Your task to perform on an android device: turn off priority inbox in the gmail app Image 0: 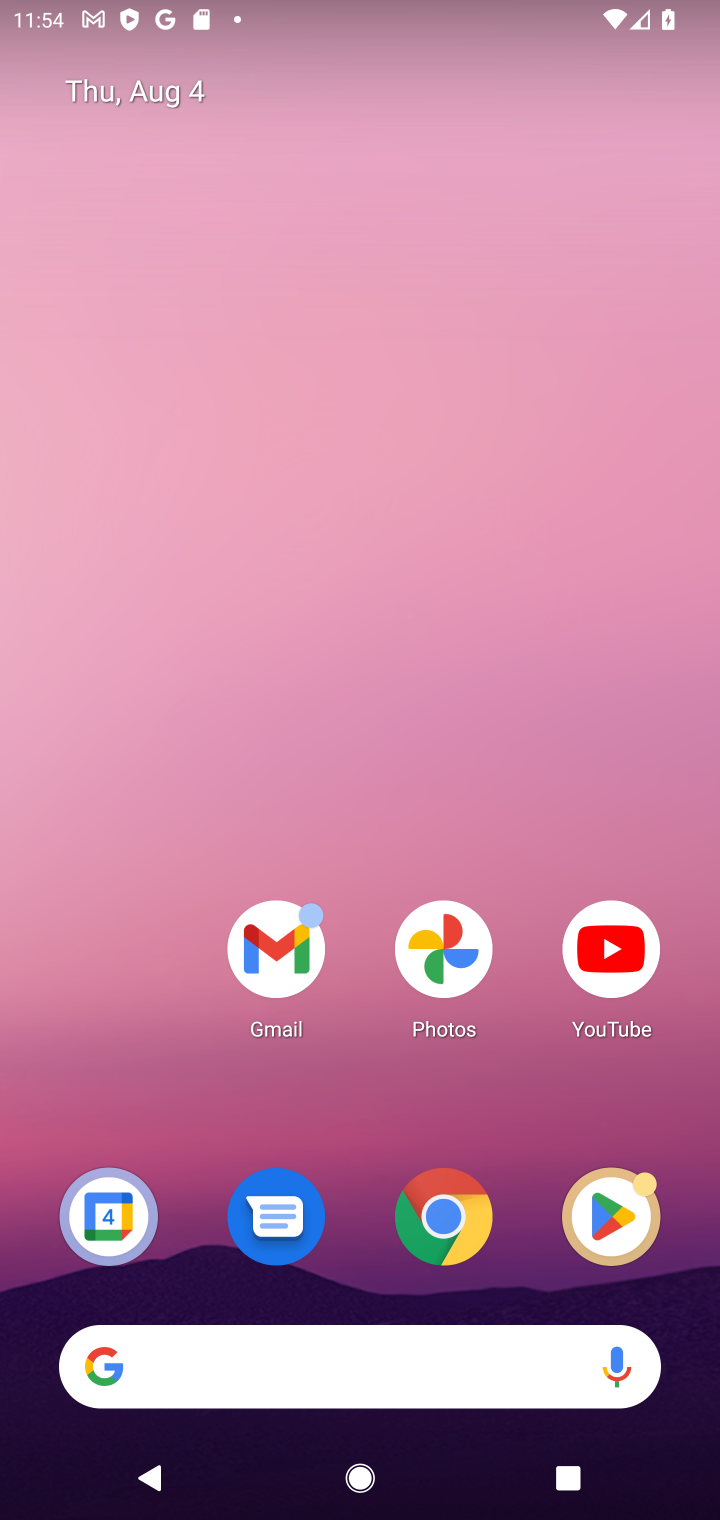
Step 0: drag from (387, 604) to (405, 117)
Your task to perform on an android device: turn off priority inbox in the gmail app Image 1: 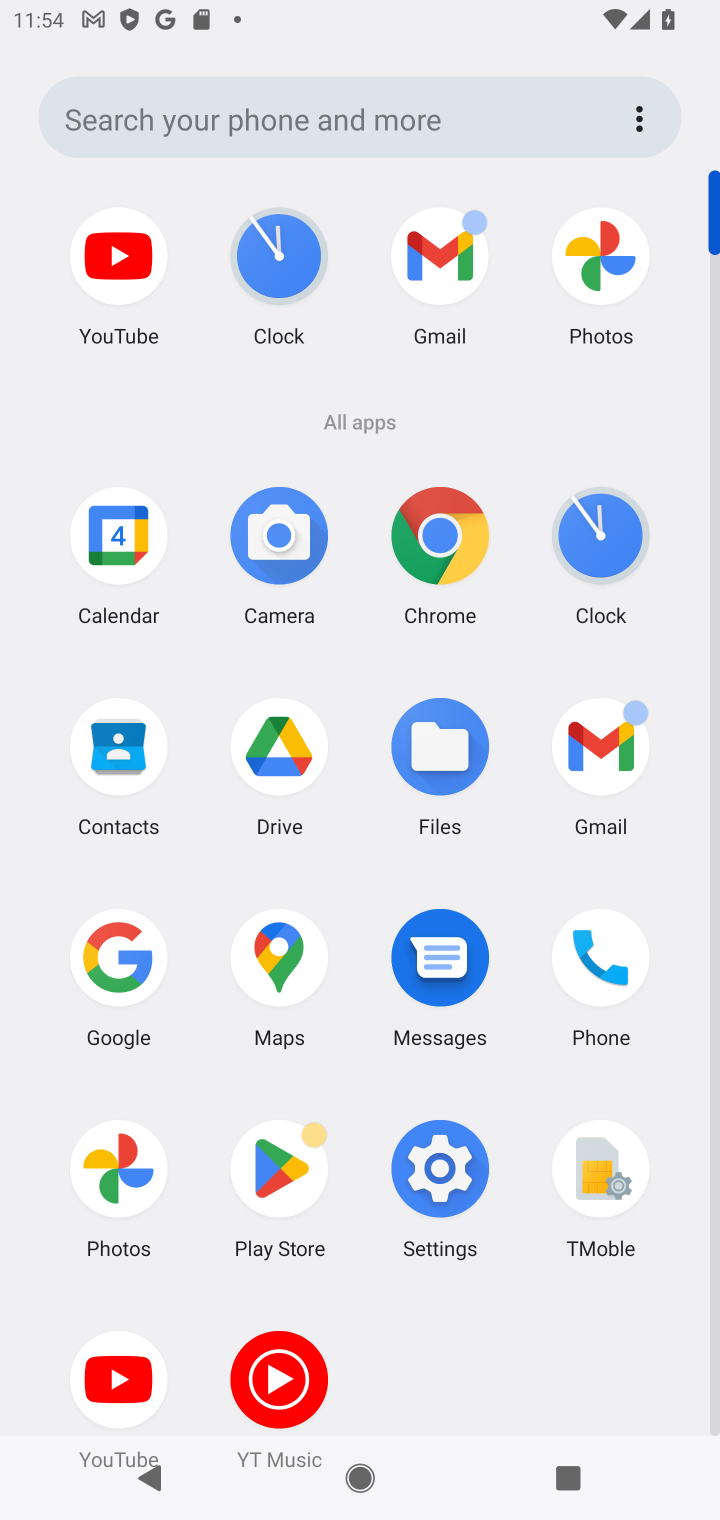
Step 1: click (467, 255)
Your task to perform on an android device: turn off priority inbox in the gmail app Image 2: 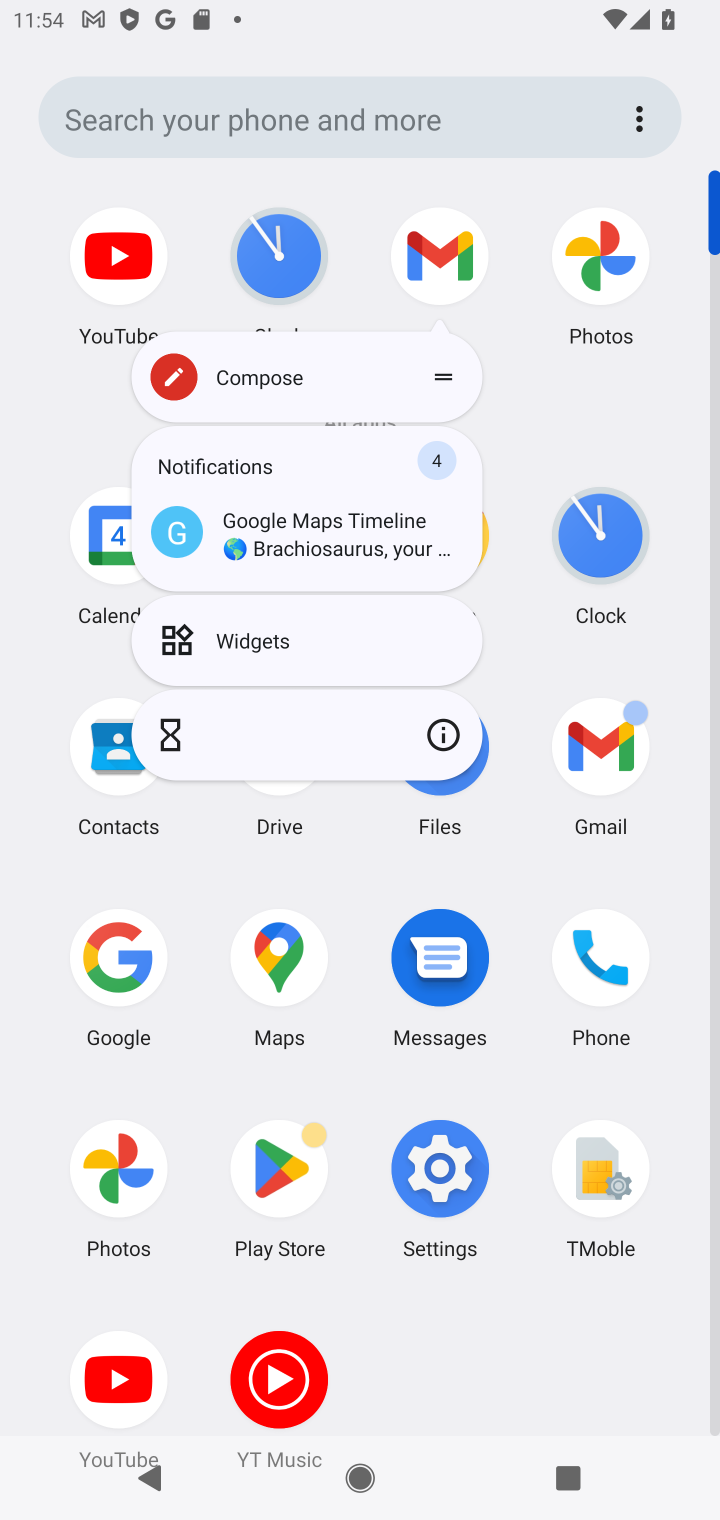
Step 2: click (434, 296)
Your task to perform on an android device: turn off priority inbox in the gmail app Image 3: 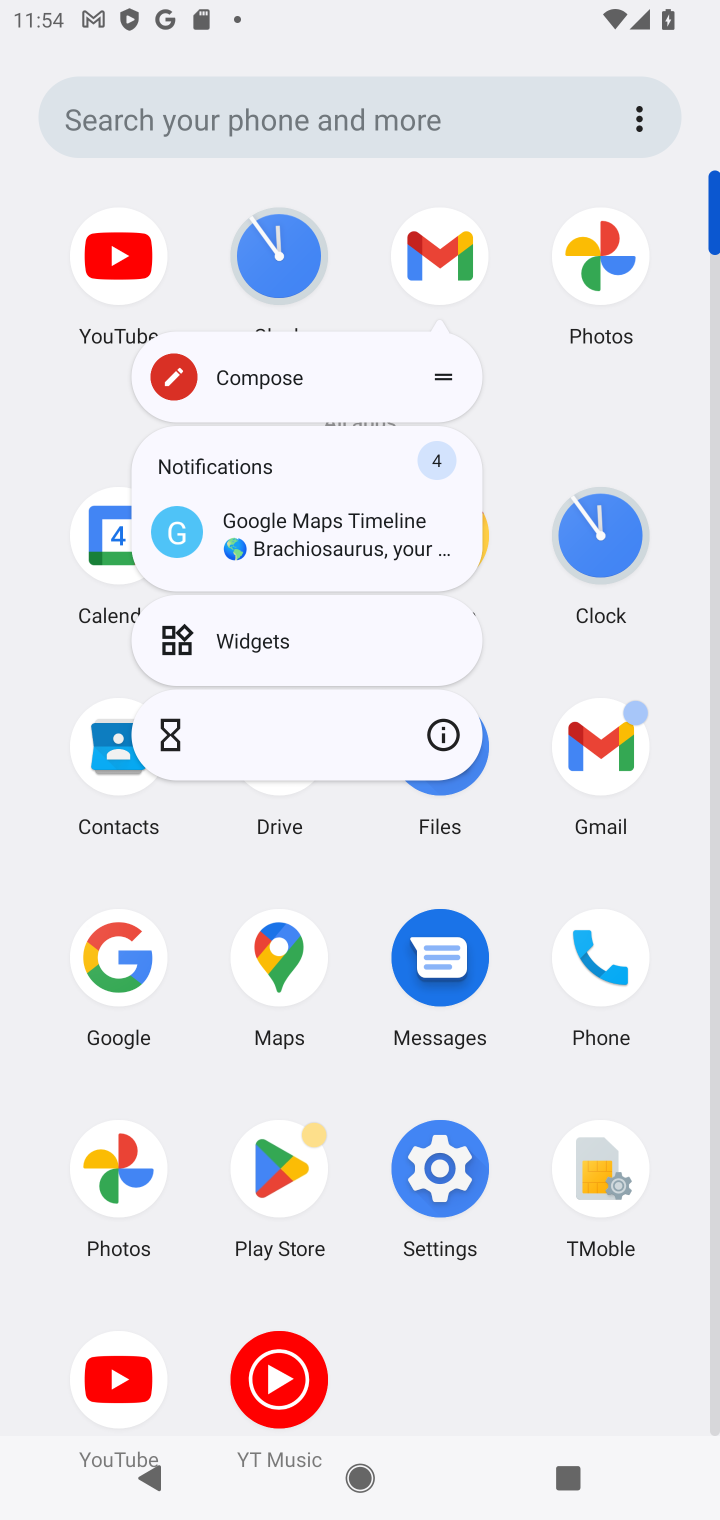
Step 3: click (608, 749)
Your task to perform on an android device: turn off priority inbox in the gmail app Image 4: 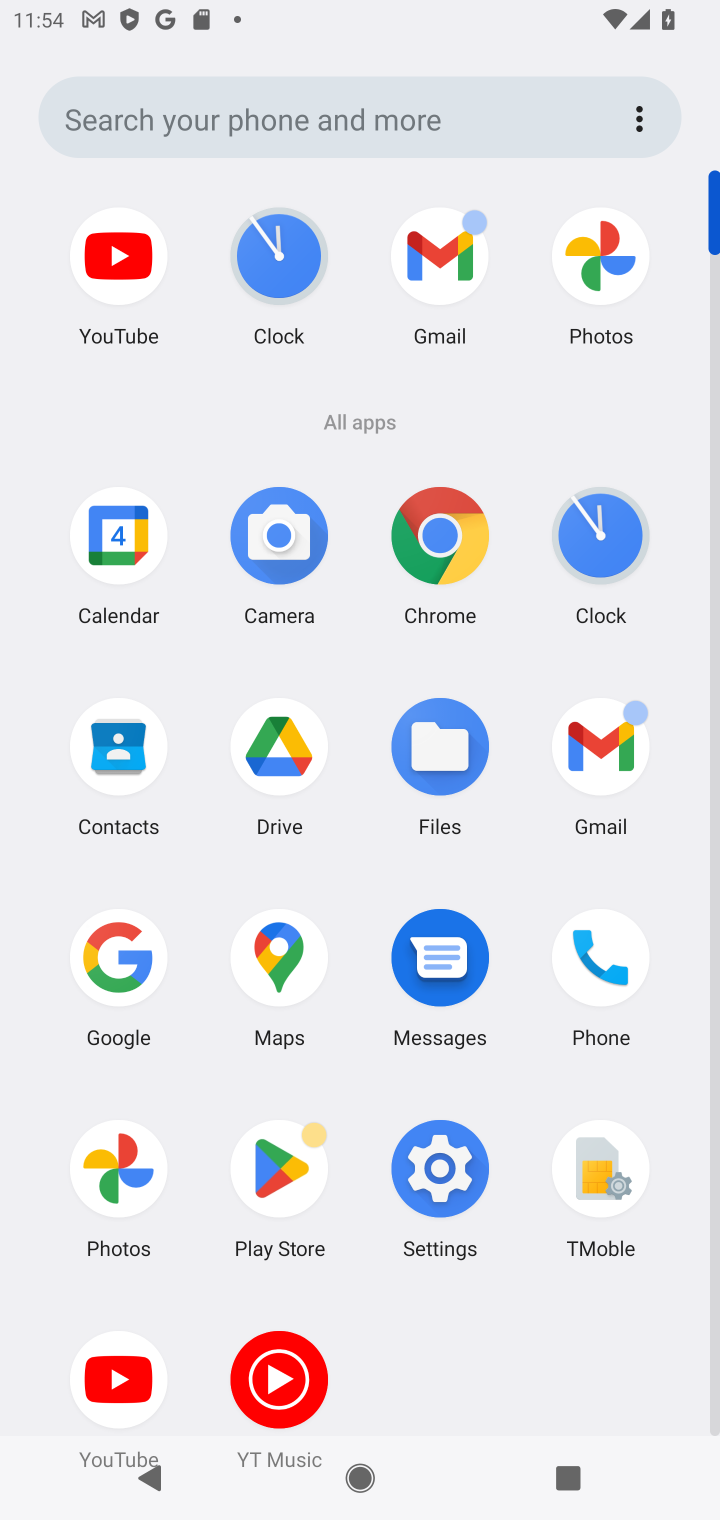
Step 4: click (610, 747)
Your task to perform on an android device: turn off priority inbox in the gmail app Image 5: 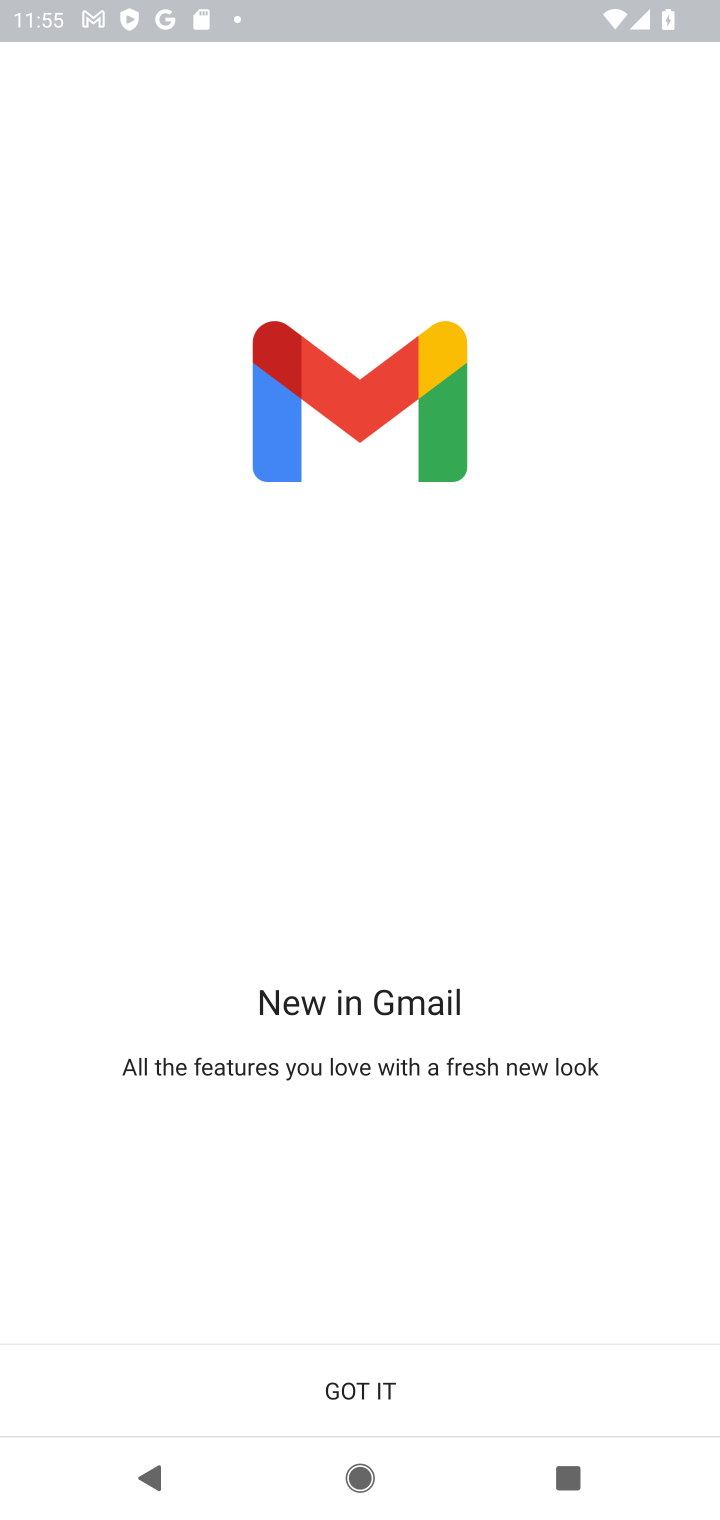
Step 5: click (359, 1382)
Your task to perform on an android device: turn off priority inbox in the gmail app Image 6: 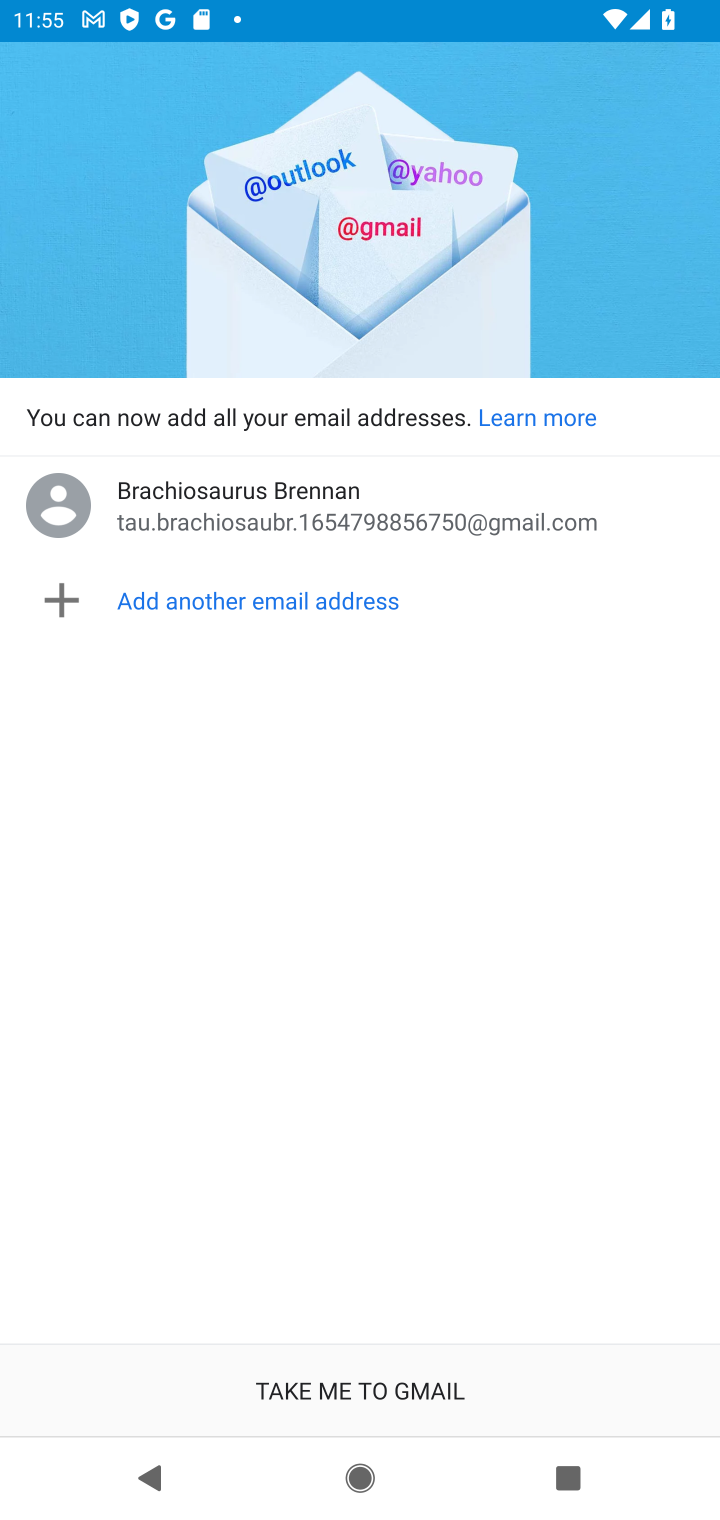
Step 6: click (359, 1382)
Your task to perform on an android device: turn off priority inbox in the gmail app Image 7: 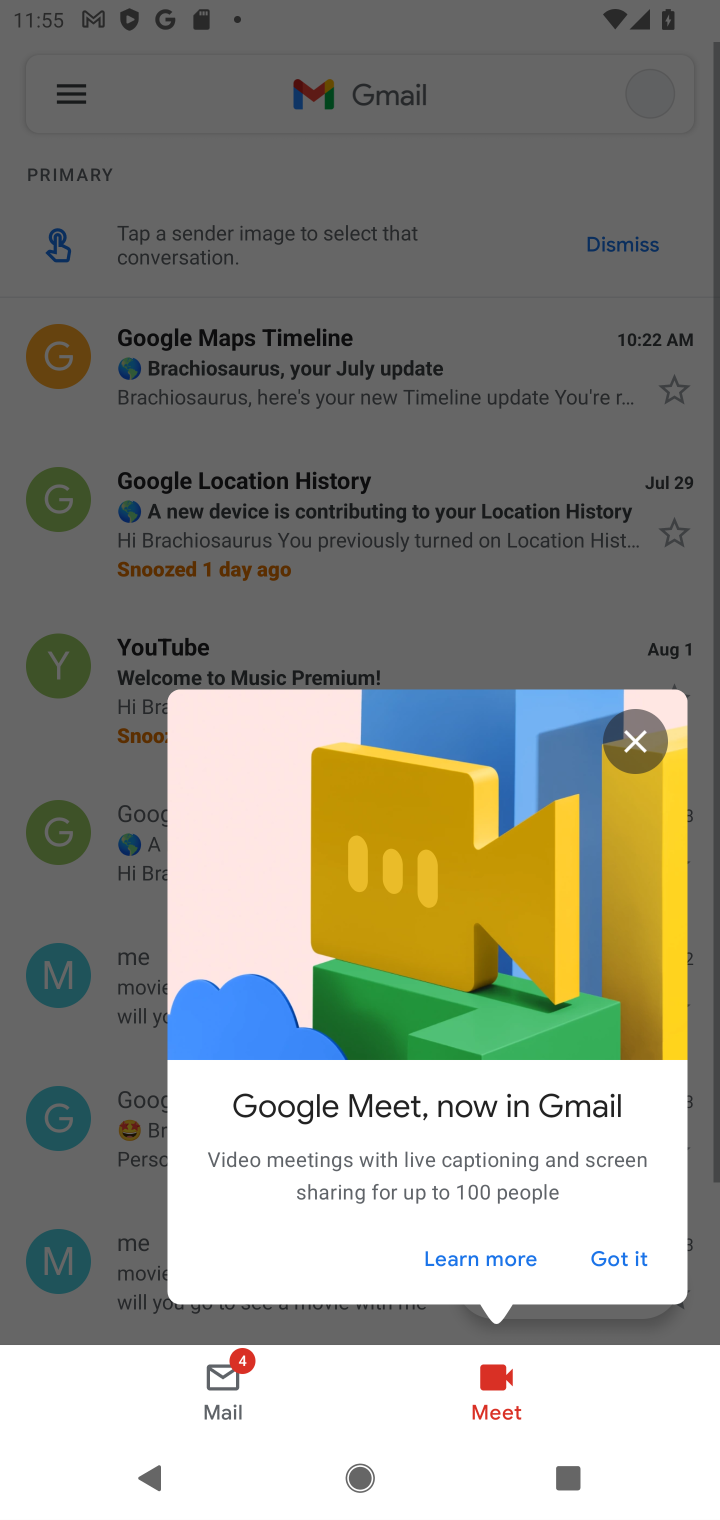
Step 7: task complete